Your task to perform on an android device: Turn on the flashlight Image 0: 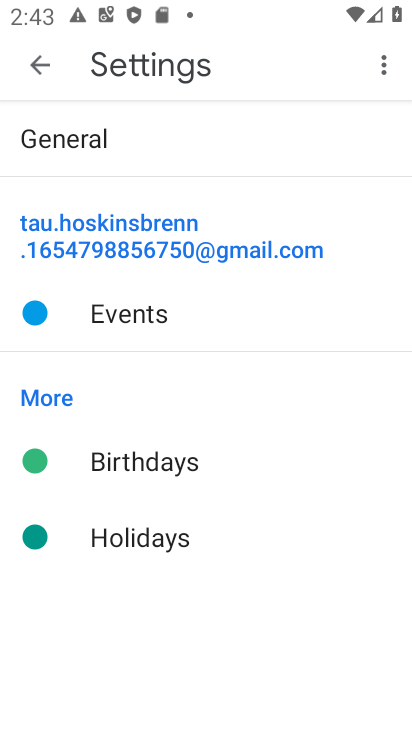
Step 0: press home button
Your task to perform on an android device: Turn on the flashlight Image 1: 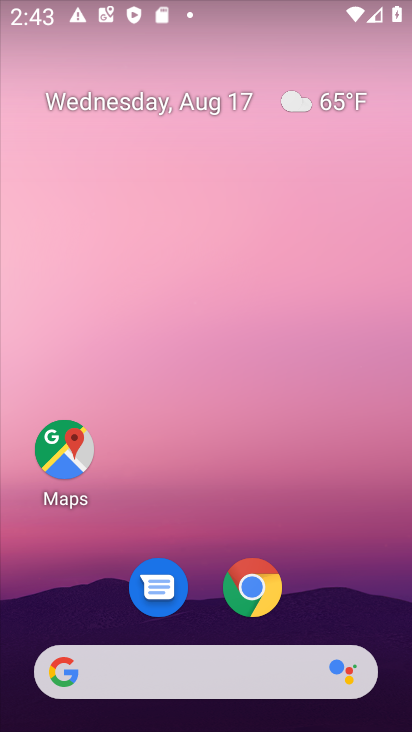
Step 1: drag from (83, 456) to (215, 98)
Your task to perform on an android device: Turn on the flashlight Image 2: 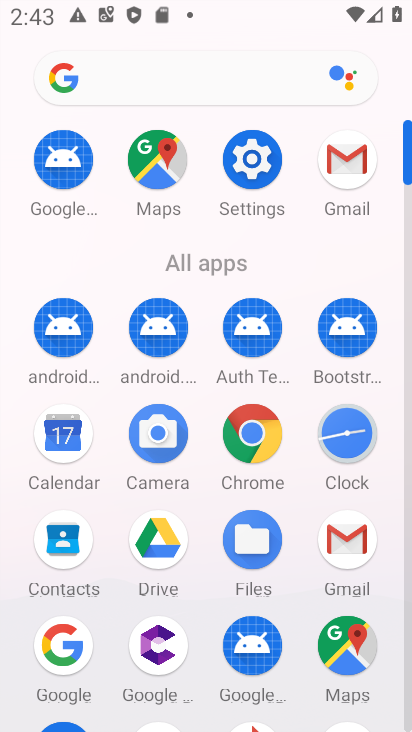
Step 2: click (246, 155)
Your task to perform on an android device: Turn on the flashlight Image 3: 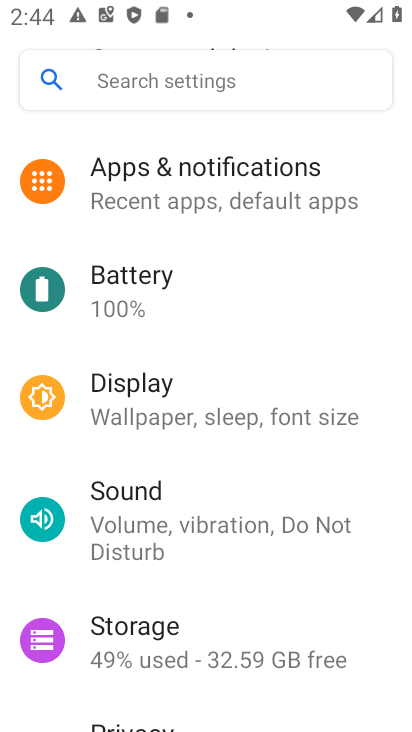
Step 3: drag from (10, 469) to (117, 152)
Your task to perform on an android device: Turn on the flashlight Image 4: 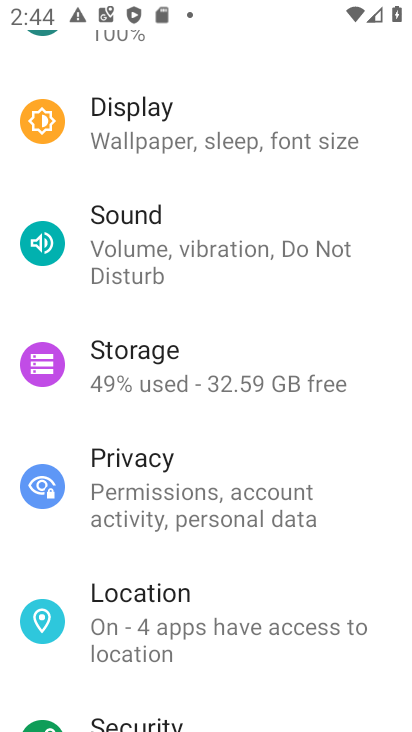
Step 4: click (236, 153)
Your task to perform on an android device: Turn on the flashlight Image 5: 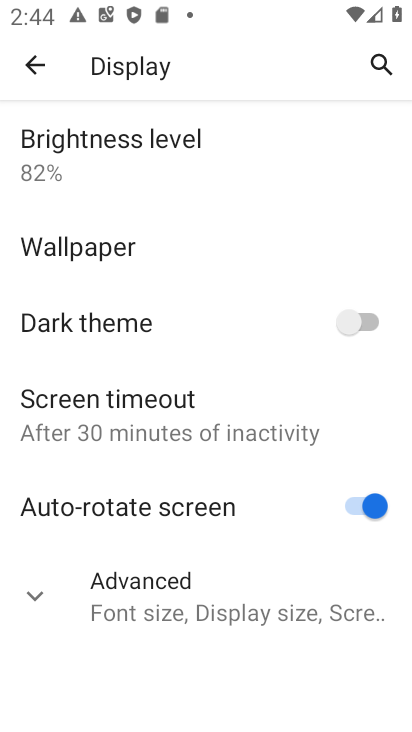
Step 5: task complete